Your task to perform on an android device: delete browsing data in the chrome app Image 0: 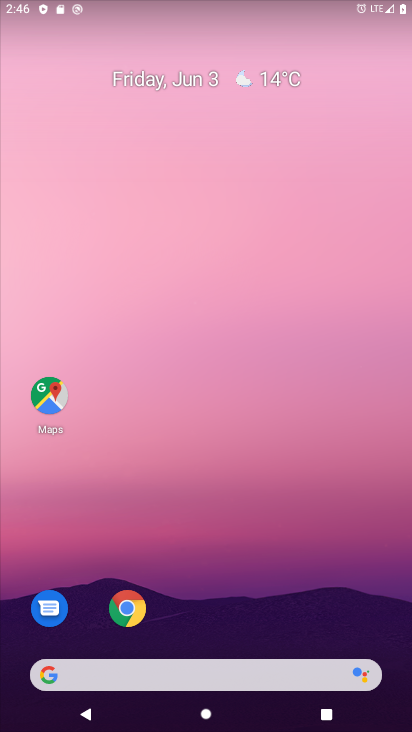
Step 0: click (130, 609)
Your task to perform on an android device: delete browsing data in the chrome app Image 1: 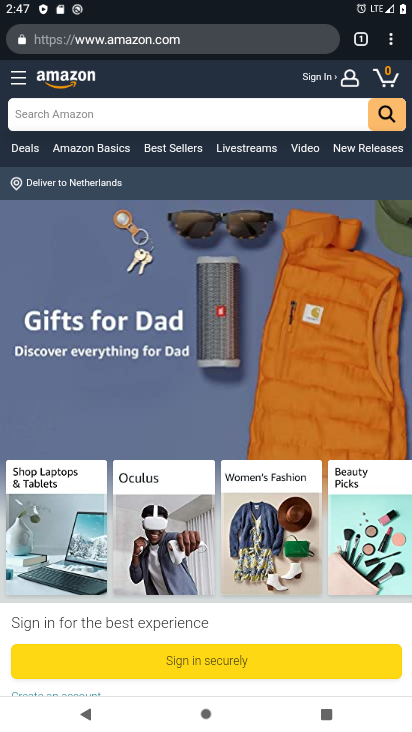
Step 1: drag from (390, 33) to (263, 267)
Your task to perform on an android device: delete browsing data in the chrome app Image 2: 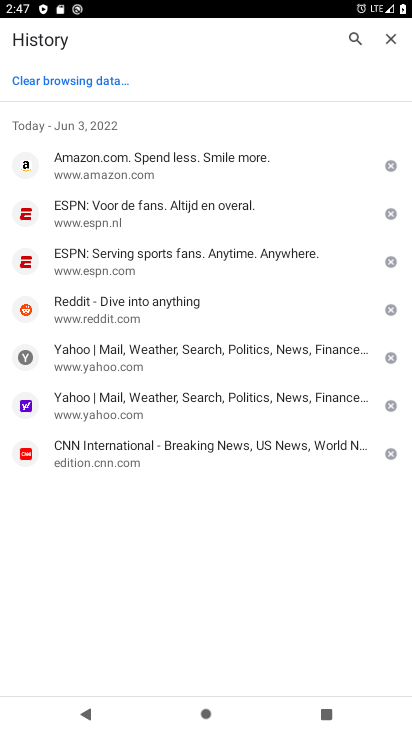
Step 2: click (55, 79)
Your task to perform on an android device: delete browsing data in the chrome app Image 3: 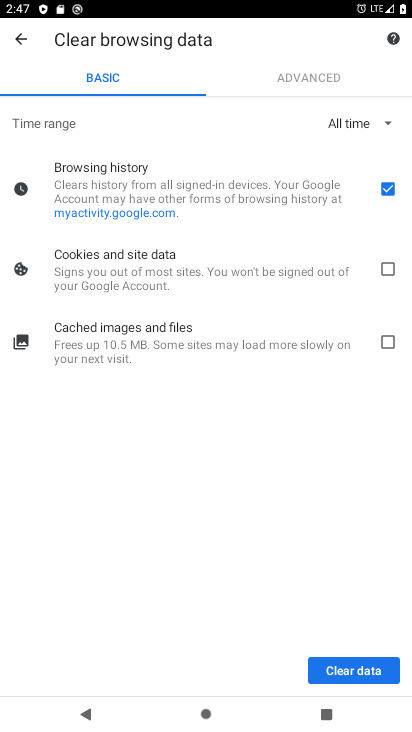
Step 3: click (377, 670)
Your task to perform on an android device: delete browsing data in the chrome app Image 4: 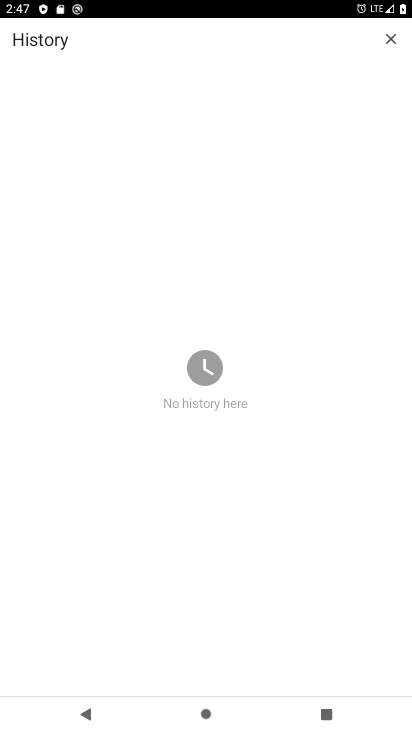
Step 4: task complete